Your task to perform on an android device: allow notifications from all sites in the chrome app Image 0: 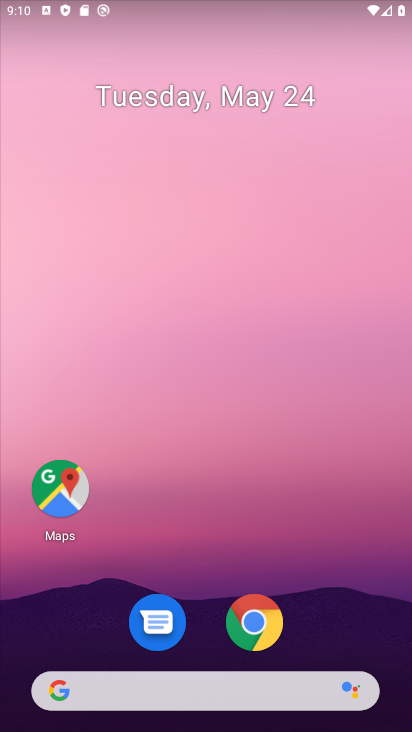
Step 0: press home button
Your task to perform on an android device: allow notifications from all sites in the chrome app Image 1: 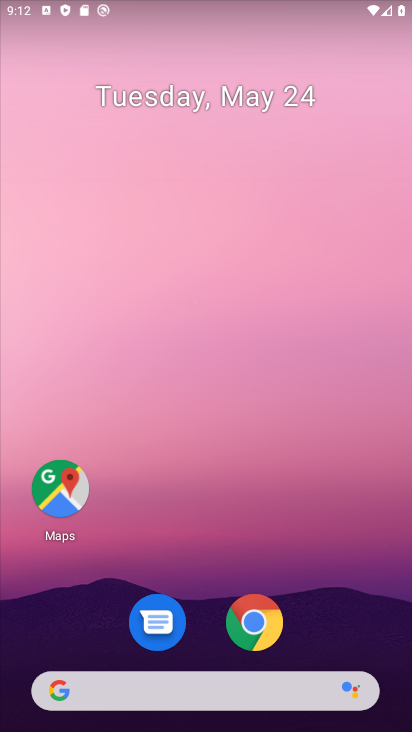
Step 1: drag from (236, 711) to (368, 307)
Your task to perform on an android device: allow notifications from all sites in the chrome app Image 2: 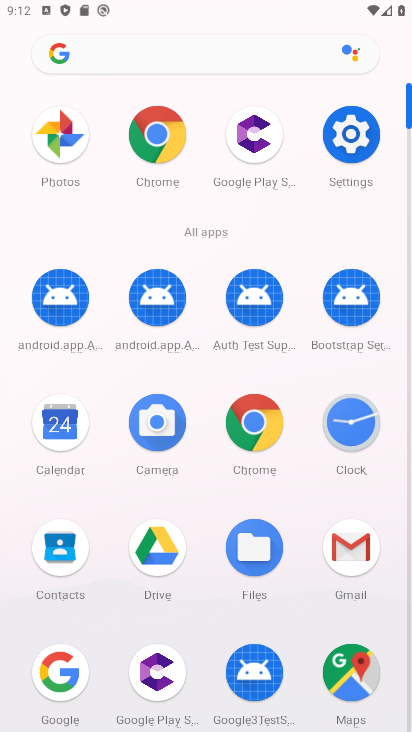
Step 2: click (154, 156)
Your task to perform on an android device: allow notifications from all sites in the chrome app Image 3: 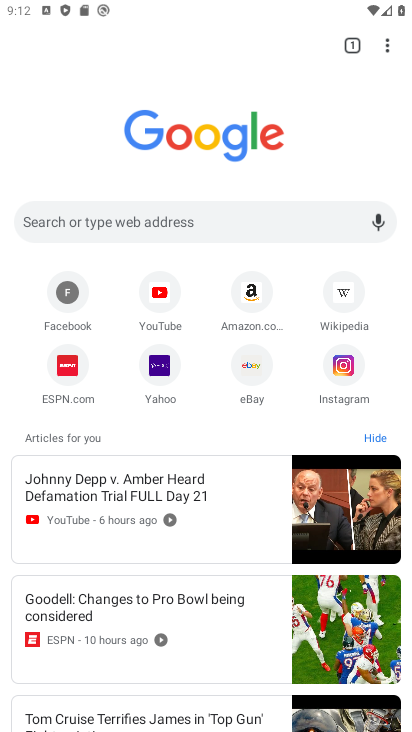
Step 3: click (369, 55)
Your task to perform on an android device: allow notifications from all sites in the chrome app Image 4: 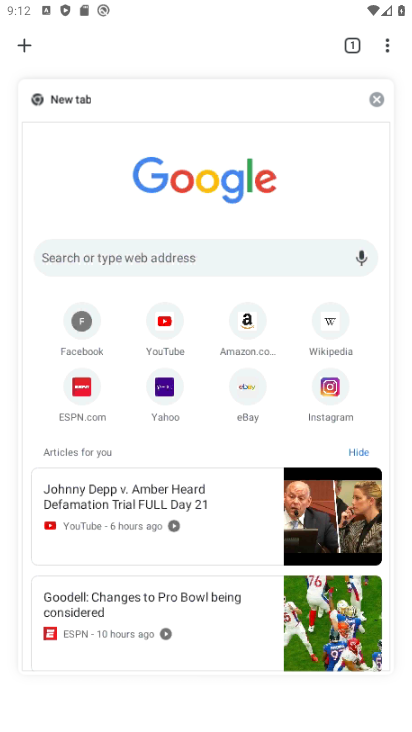
Step 4: click (382, 52)
Your task to perform on an android device: allow notifications from all sites in the chrome app Image 5: 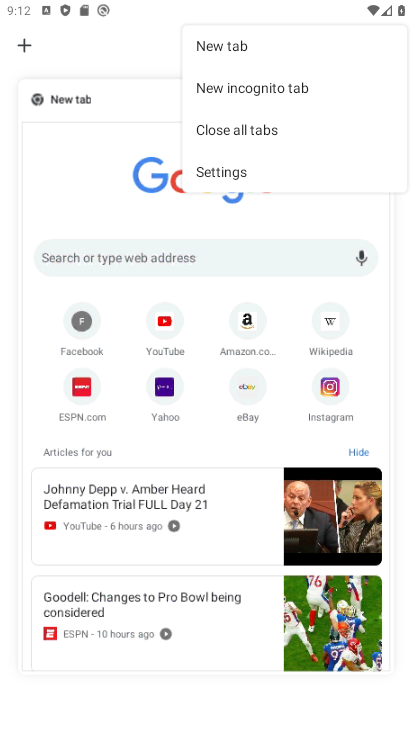
Step 5: click (226, 171)
Your task to perform on an android device: allow notifications from all sites in the chrome app Image 6: 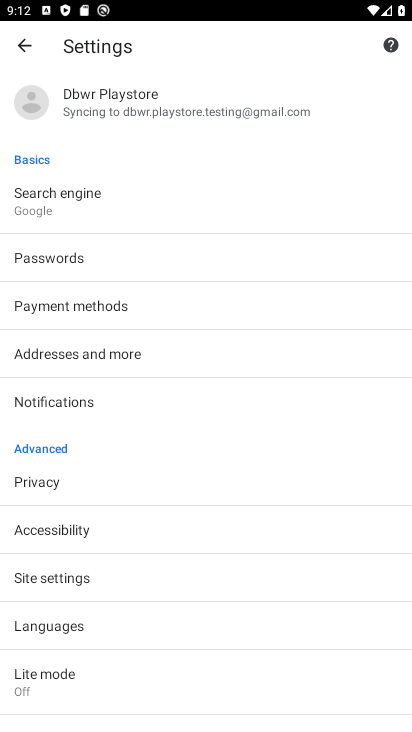
Step 6: click (66, 579)
Your task to perform on an android device: allow notifications from all sites in the chrome app Image 7: 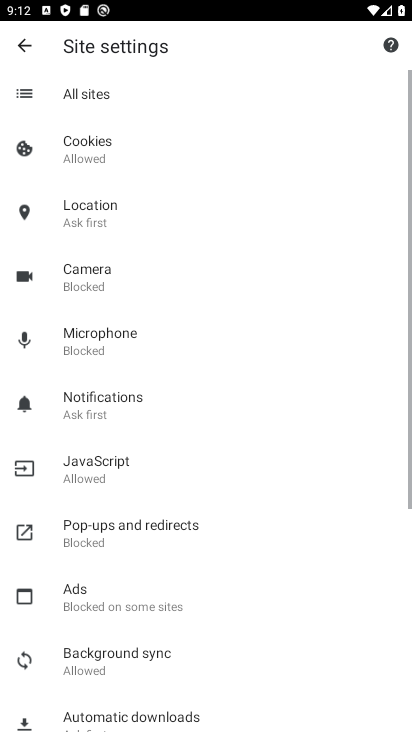
Step 7: click (155, 406)
Your task to perform on an android device: allow notifications from all sites in the chrome app Image 8: 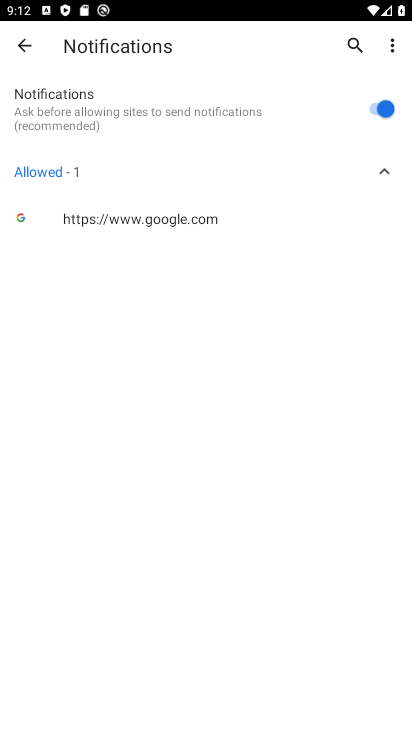
Step 8: click (381, 120)
Your task to perform on an android device: allow notifications from all sites in the chrome app Image 9: 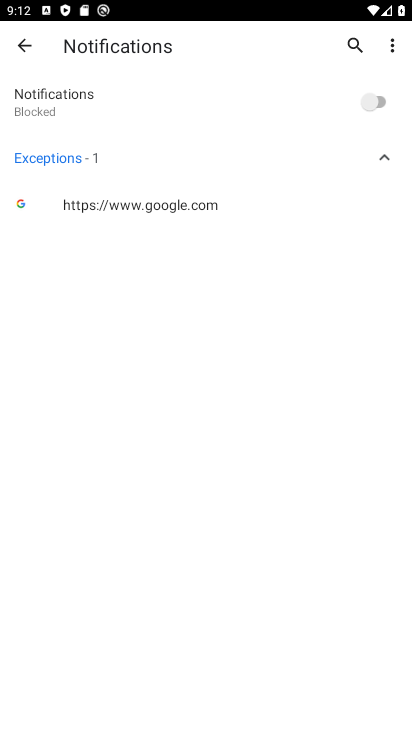
Step 9: click (384, 99)
Your task to perform on an android device: allow notifications from all sites in the chrome app Image 10: 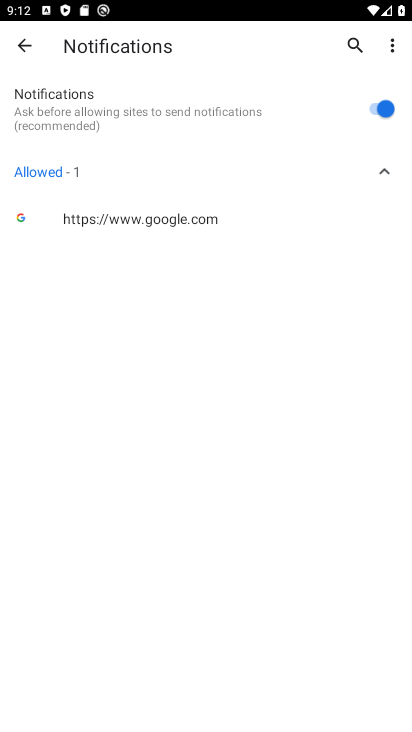
Step 10: task complete